Your task to perform on an android device: Add duracell triple a to the cart on bestbuy.com, then select checkout. Image 0: 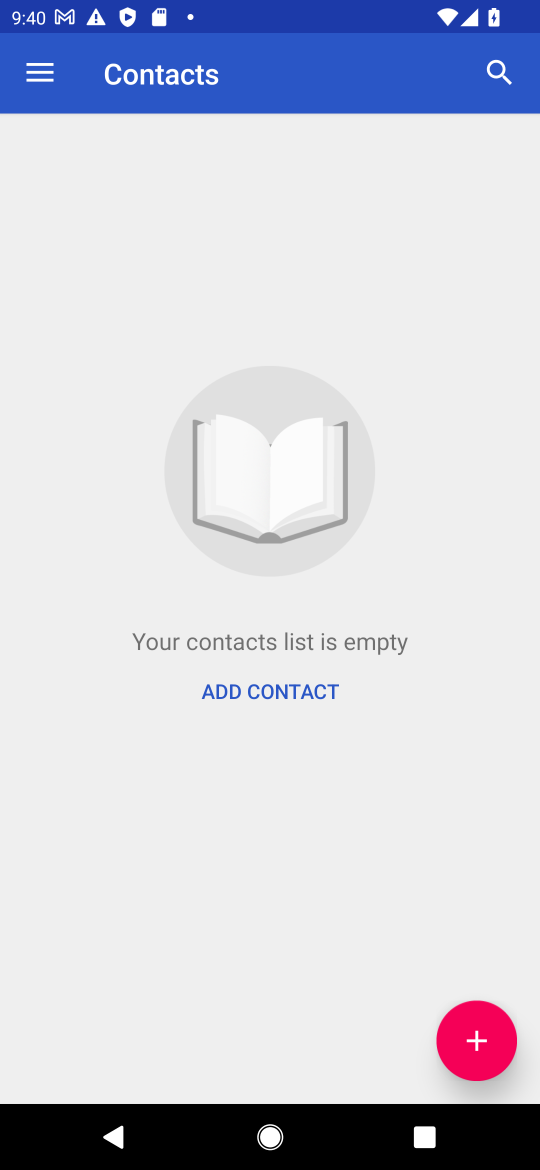
Step 0: press home button
Your task to perform on an android device: Add duracell triple a to the cart on bestbuy.com, then select checkout. Image 1: 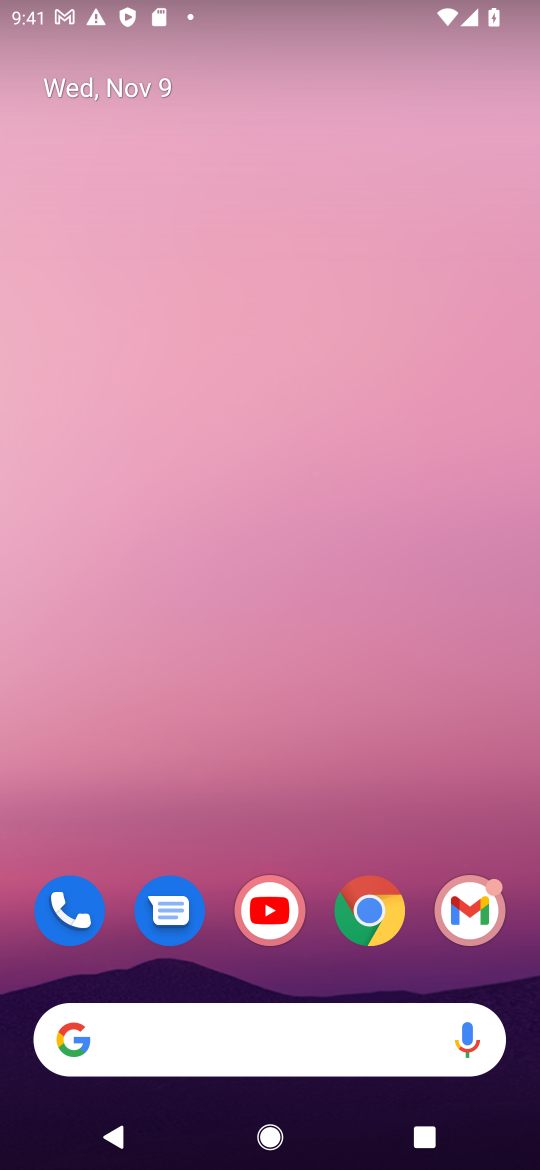
Step 1: click (361, 927)
Your task to perform on an android device: Add duracell triple a to the cart on bestbuy.com, then select checkout. Image 2: 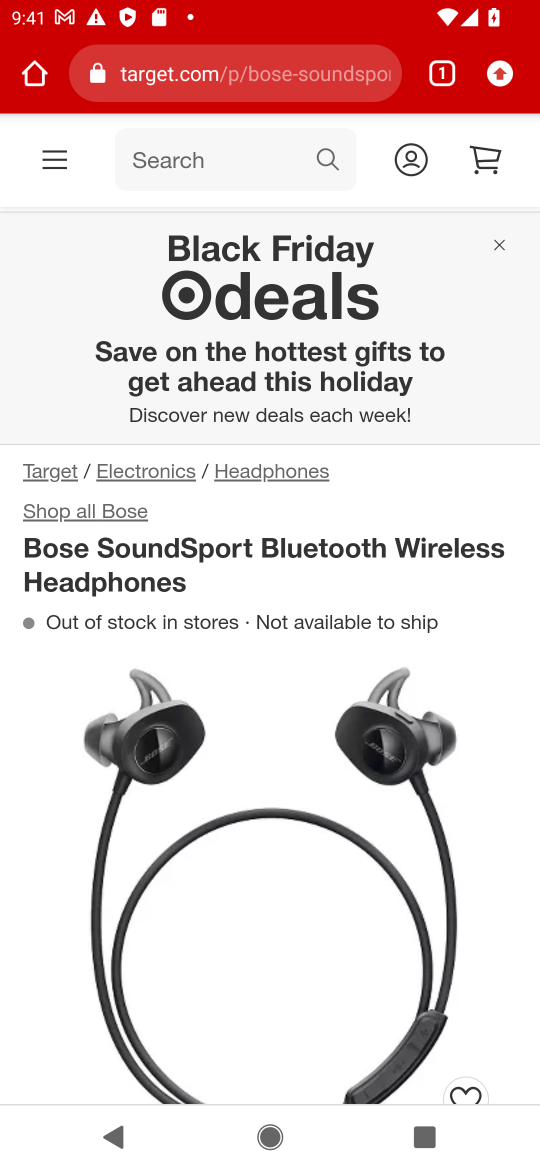
Step 2: click (193, 75)
Your task to perform on an android device: Add duracell triple a to the cart on bestbuy.com, then select checkout. Image 3: 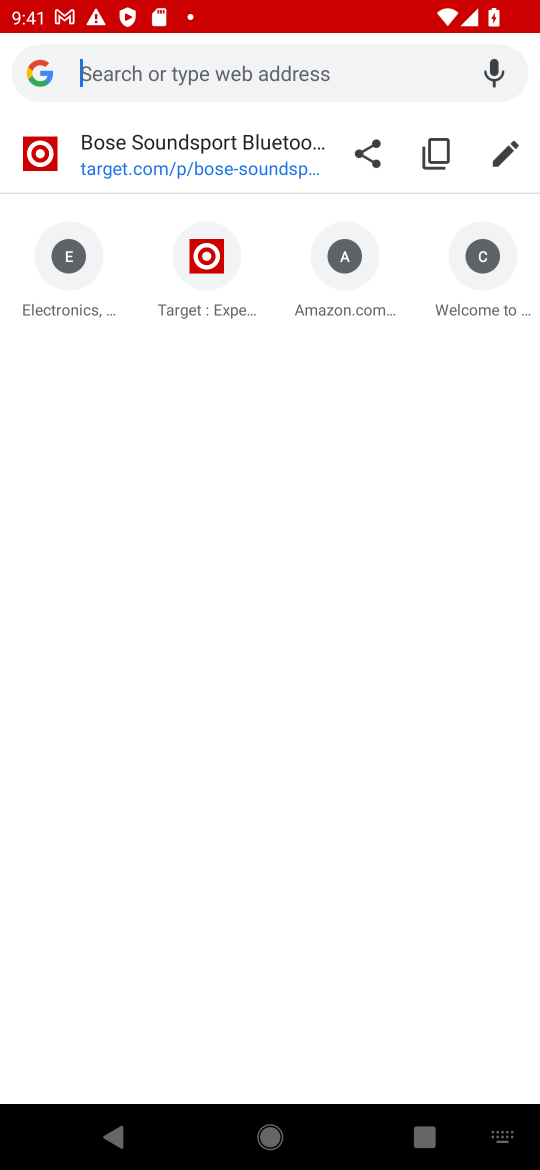
Step 3: type "bestbuy.com"
Your task to perform on an android device: Add duracell triple a to the cart on bestbuy.com, then select checkout. Image 4: 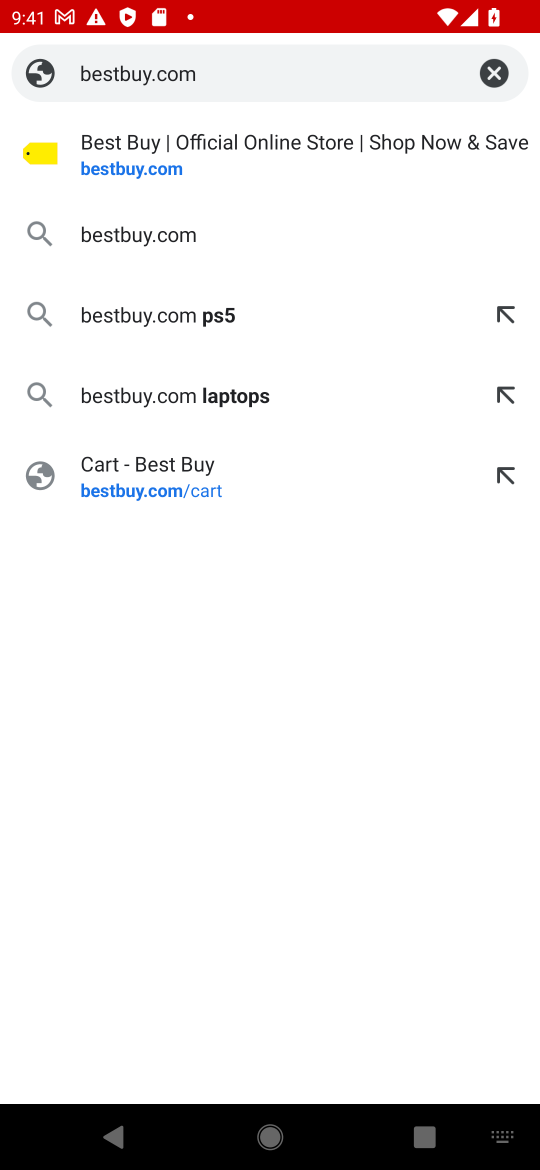
Step 4: click (116, 166)
Your task to perform on an android device: Add duracell triple a to the cart on bestbuy.com, then select checkout. Image 5: 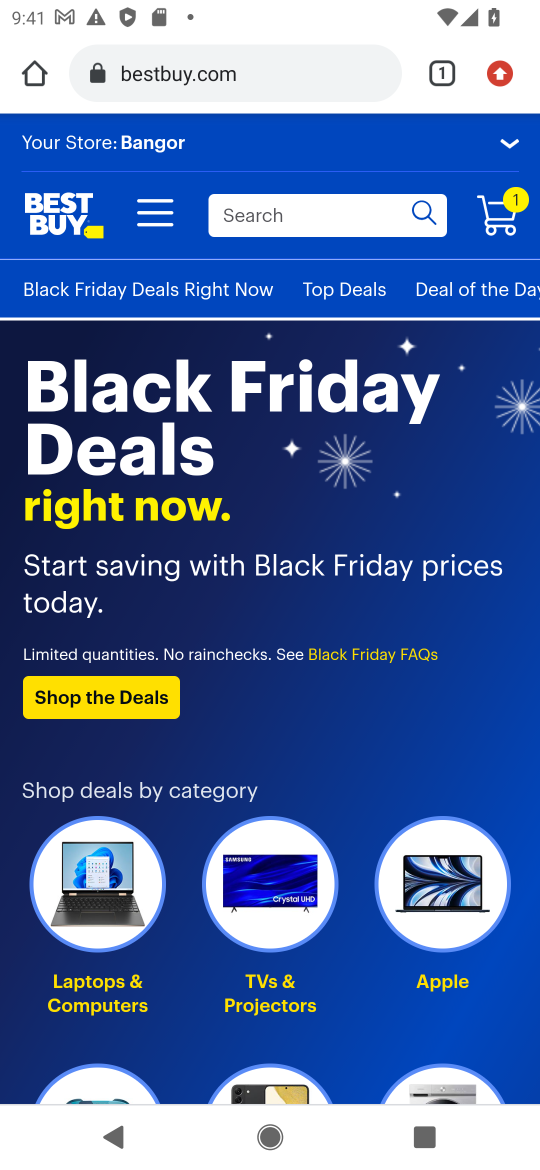
Step 5: click (229, 209)
Your task to perform on an android device: Add duracell triple a to the cart on bestbuy.com, then select checkout. Image 6: 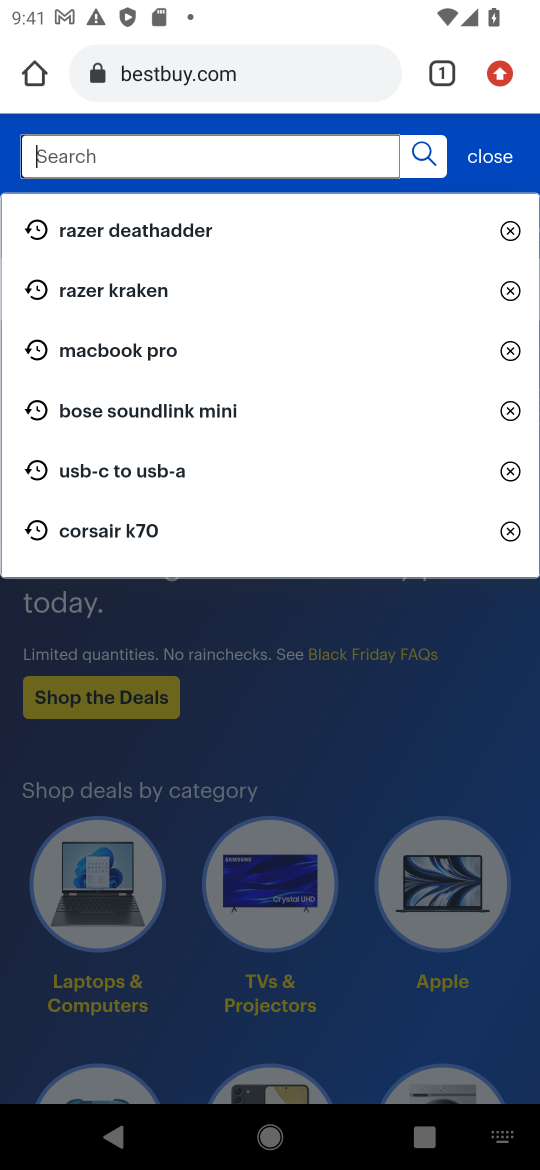
Step 6: type "duracell triple a"
Your task to perform on an android device: Add duracell triple a to the cart on bestbuy.com, then select checkout. Image 7: 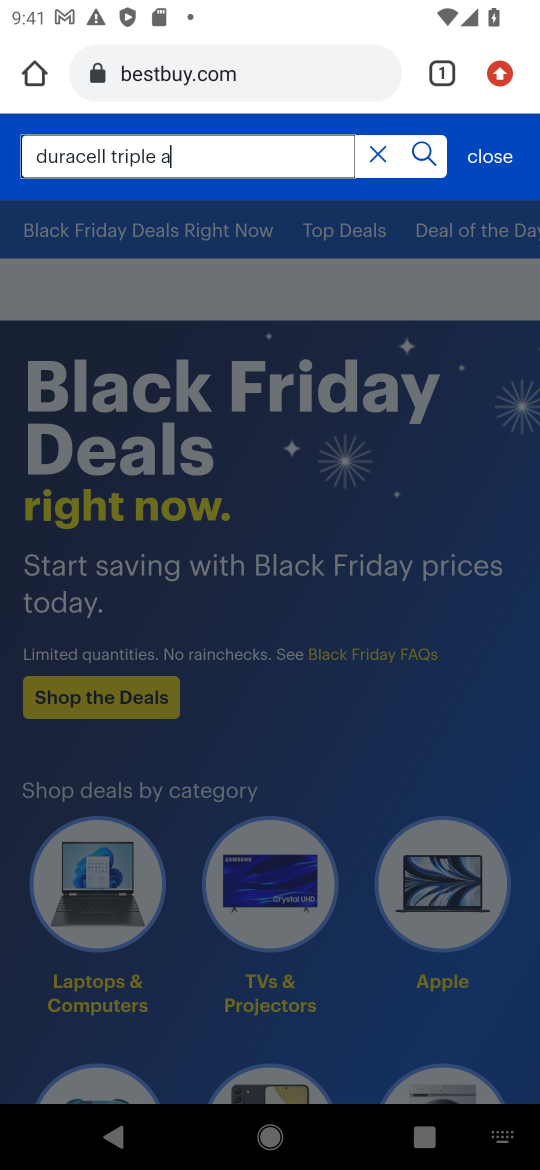
Step 7: click (421, 152)
Your task to perform on an android device: Add duracell triple a to the cart on bestbuy.com, then select checkout. Image 8: 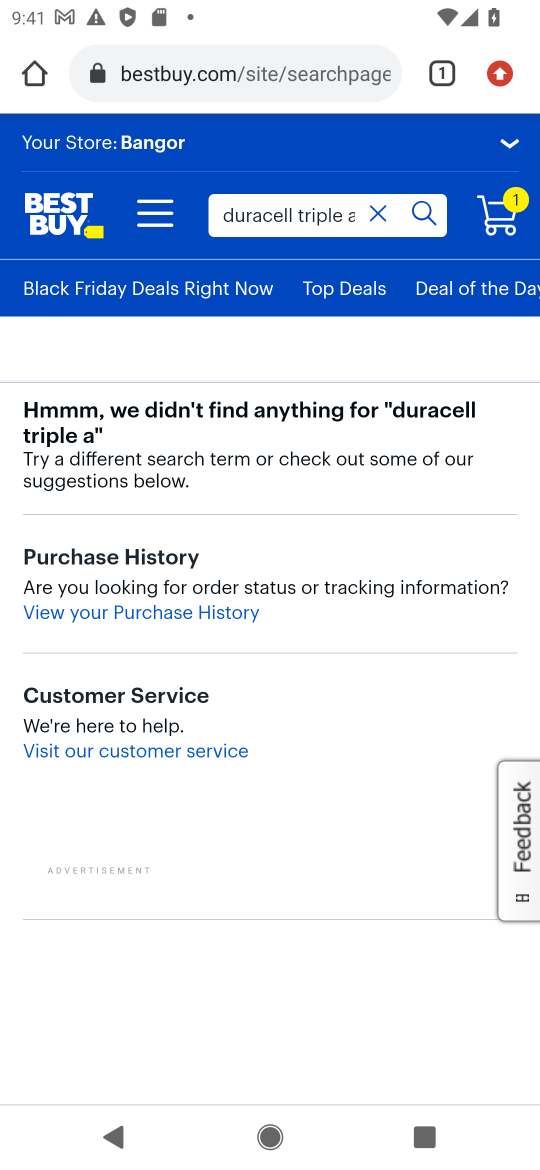
Step 8: task complete